Your task to perform on an android device: Go to eBay Image 0: 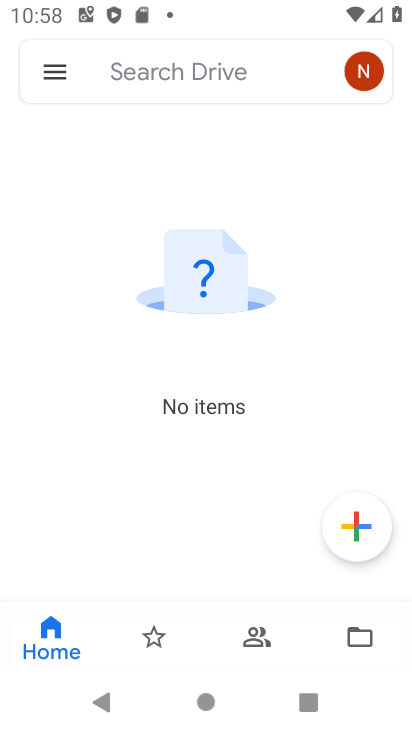
Step 0: press home button
Your task to perform on an android device: Go to eBay Image 1: 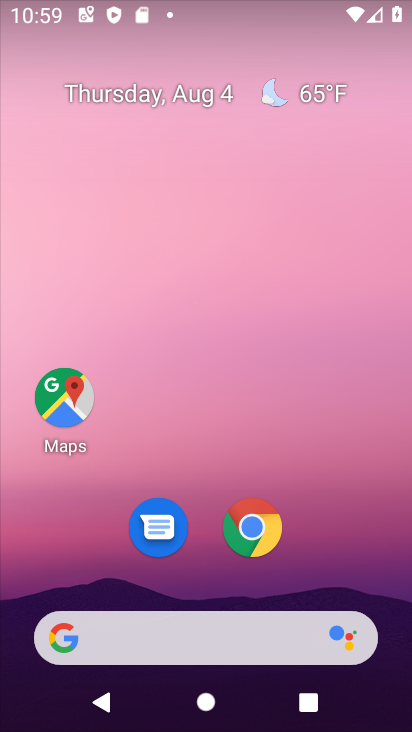
Step 1: click (220, 640)
Your task to perform on an android device: Go to eBay Image 2: 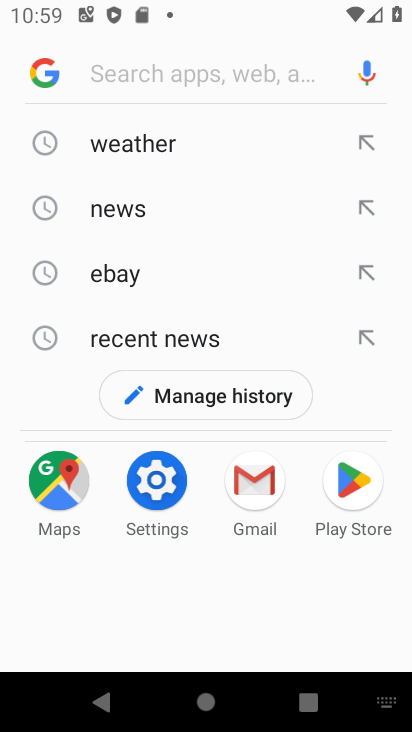
Step 2: click (90, 272)
Your task to perform on an android device: Go to eBay Image 3: 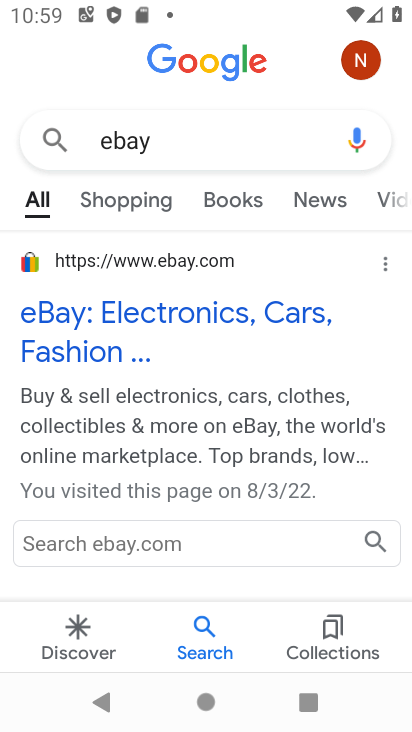
Step 3: click (151, 269)
Your task to perform on an android device: Go to eBay Image 4: 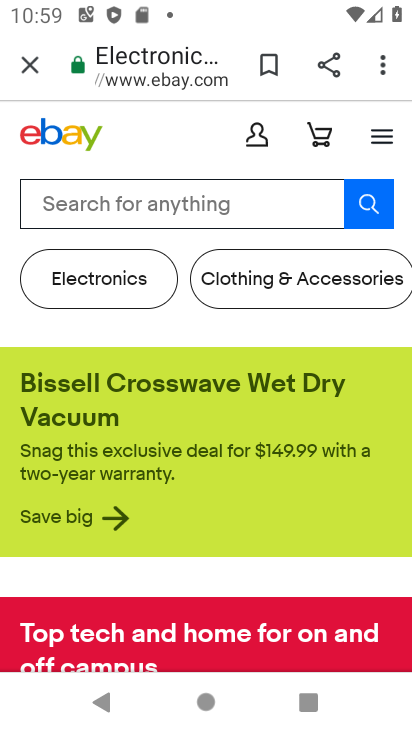
Step 4: task complete